Your task to perform on an android device: What's the weather going to be this weekend? Image 0: 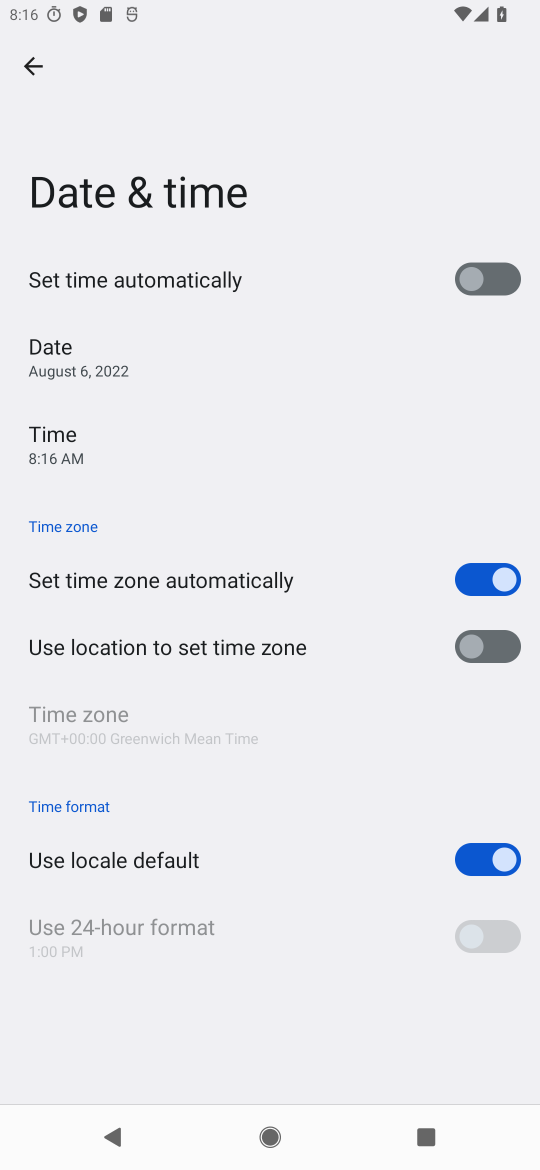
Step 0: press home button
Your task to perform on an android device: What's the weather going to be this weekend? Image 1: 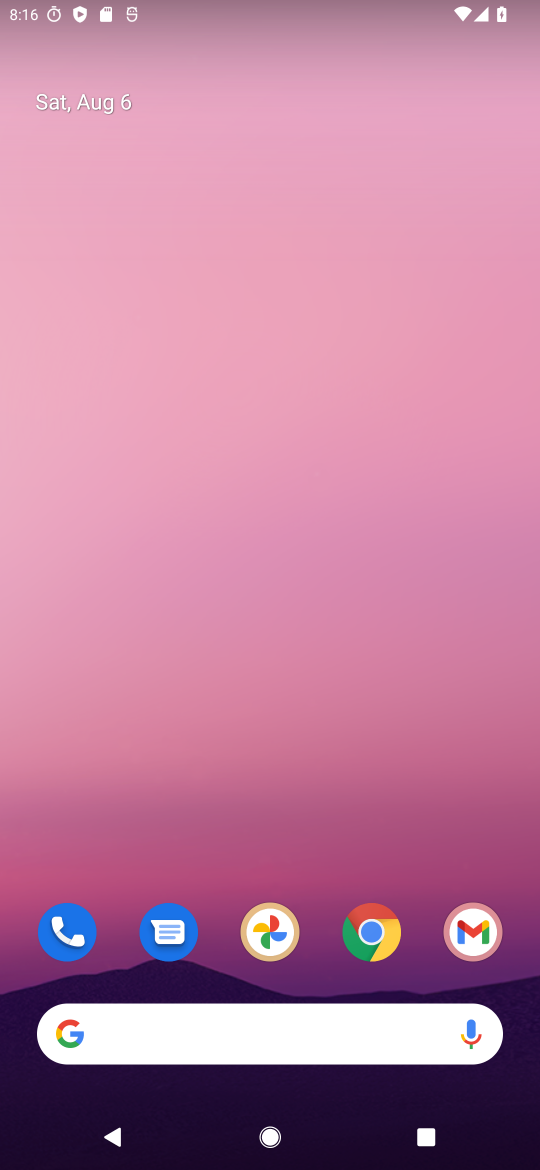
Step 1: click (184, 1028)
Your task to perform on an android device: What's the weather going to be this weekend? Image 2: 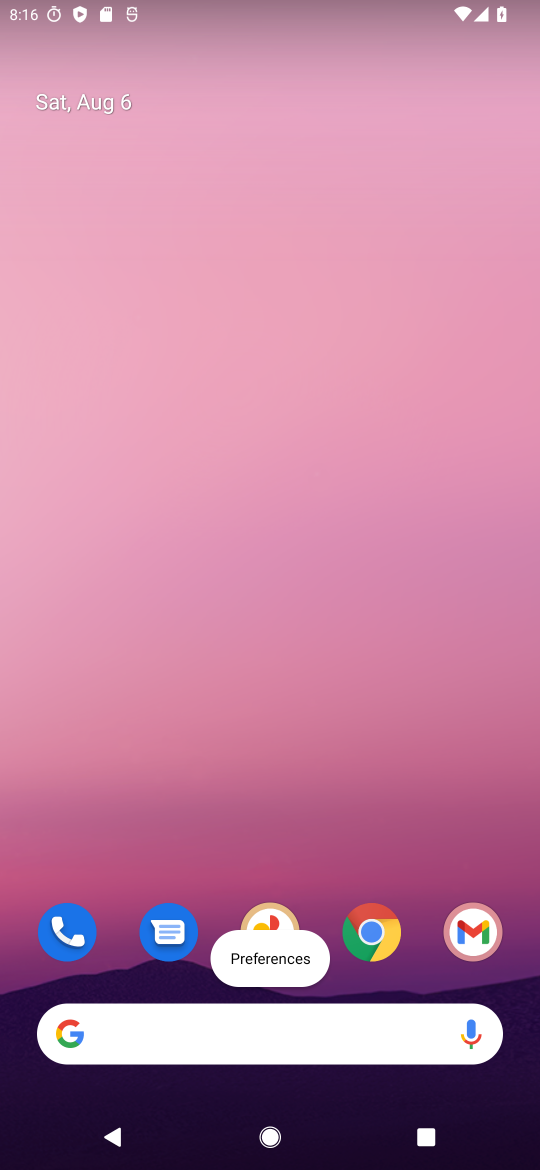
Step 2: click (168, 1016)
Your task to perform on an android device: What's the weather going to be this weekend? Image 3: 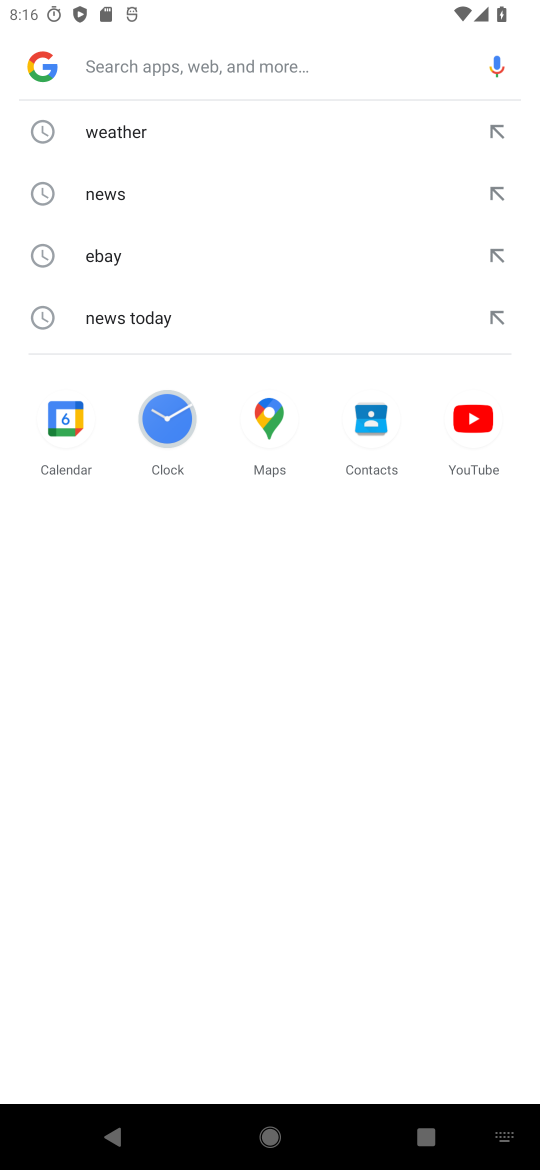
Step 3: click (94, 133)
Your task to perform on an android device: What's the weather going to be this weekend? Image 4: 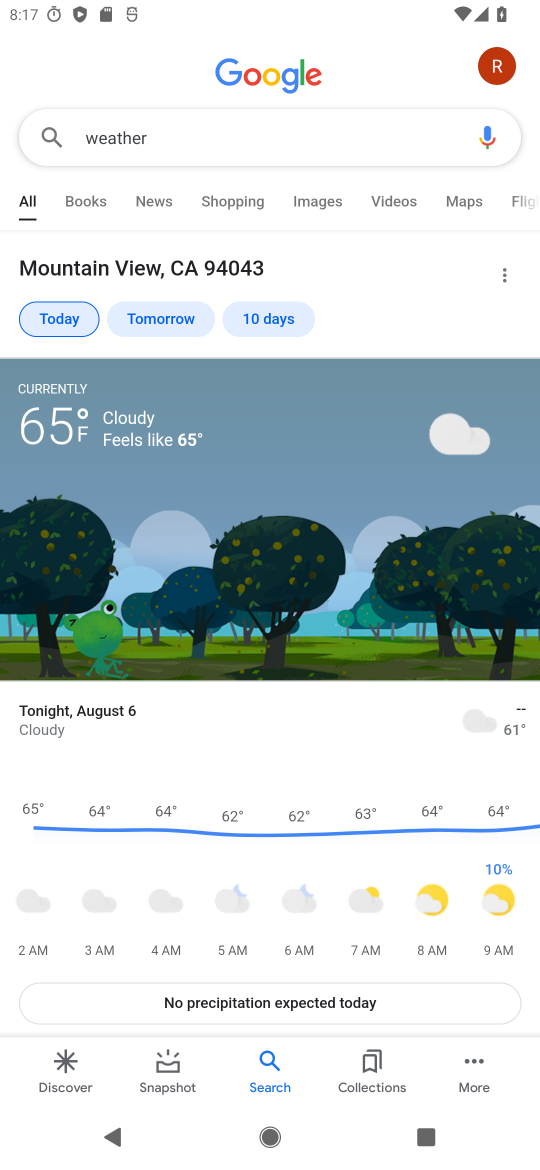
Step 4: click (268, 311)
Your task to perform on an android device: What's the weather going to be this weekend? Image 5: 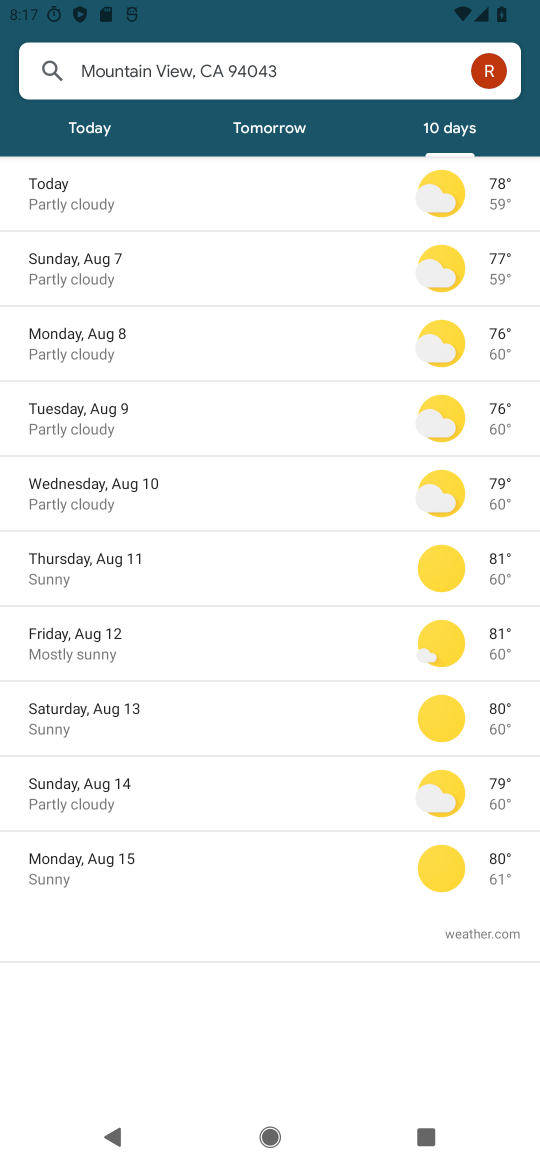
Step 5: click (106, 201)
Your task to perform on an android device: What's the weather going to be this weekend? Image 6: 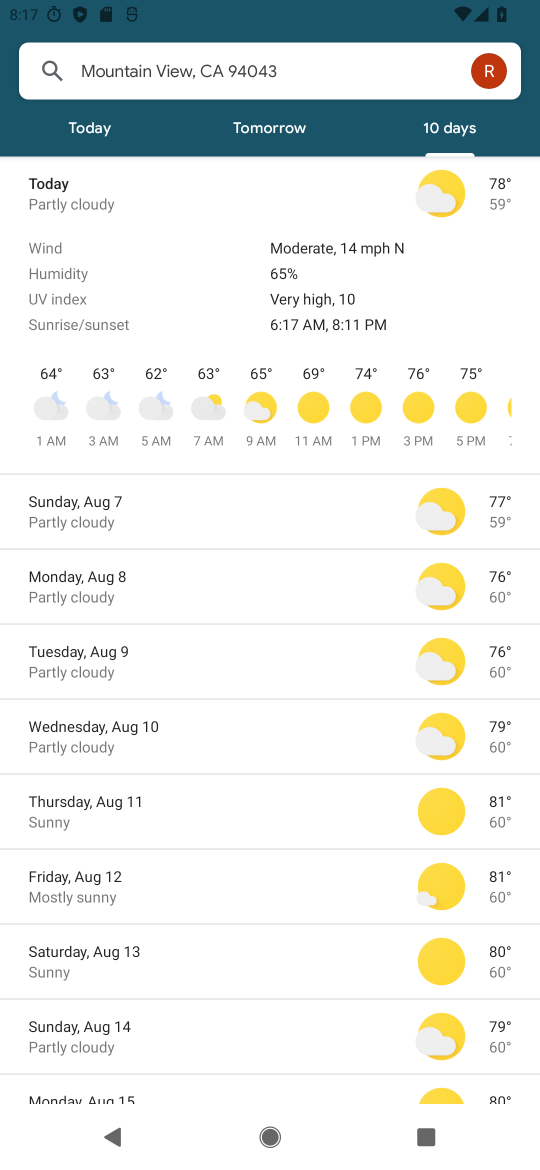
Step 6: task complete